Your task to perform on an android device: turn smart compose on in the gmail app Image 0: 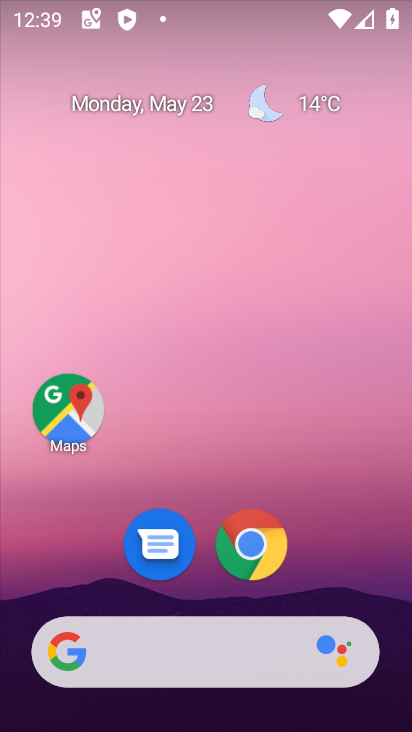
Step 0: drag from (384, 521) to (248, 51)
Your task to perform on an android device: turn smart compose on in the gmail app Image 1: 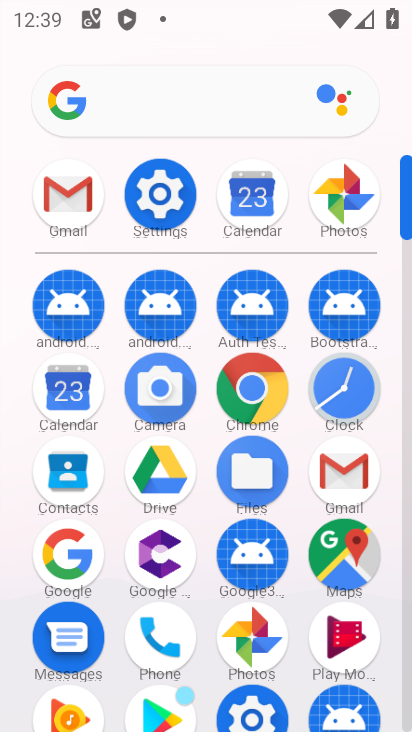
Step 1: click (72, 206)
Your task to perform on an android device: turn smart compose on in the gmail app Image 2: 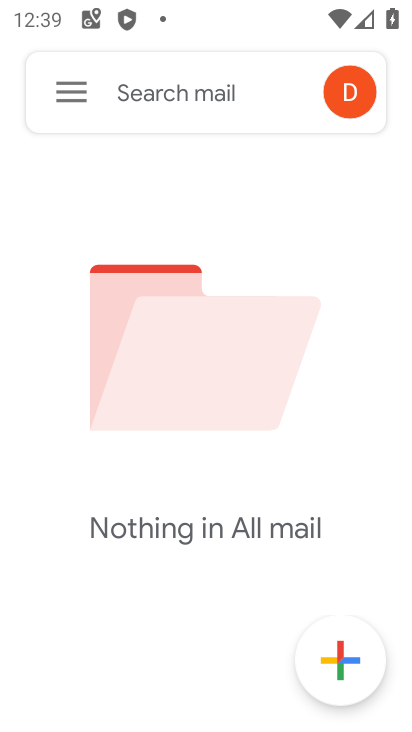
Step 2: click (65, 93)
Your task to perform on an android device: turn smart compose on in the gmail app Image 3: 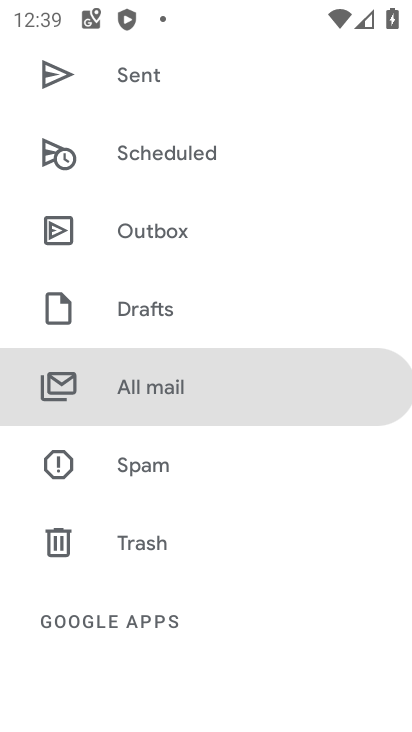
Step 3: drag from (143, 593) to (170, 166)
Your task to perform on an android device: turn smart compose on in the gmail app Image 4: 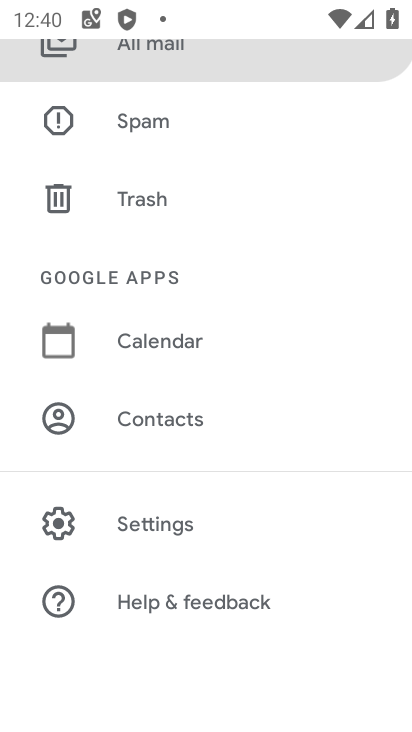
Step 4: click (154, 528)
Your task to perform on an android device: turn smart compose on in the gmail app Image 5: 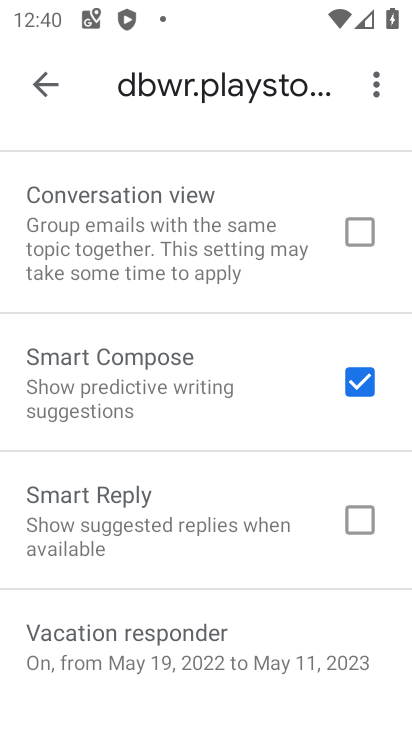
Step 5: task complete